Your task to perform on an android device: find which apps use the phone's location Image 0: 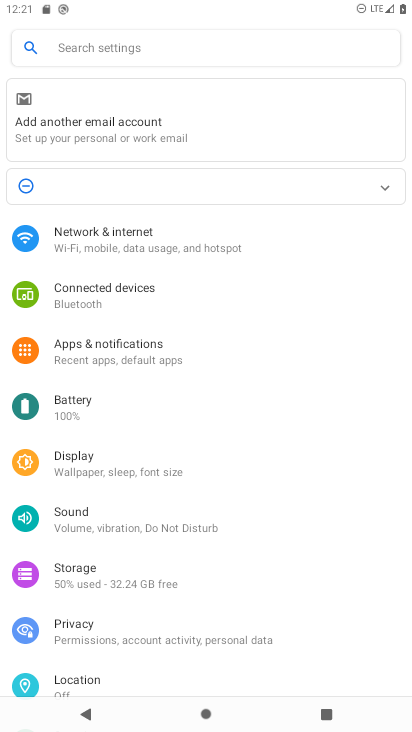
Step 0: click (138, 673)
Your task to perform on an android device: find which apps use the phone's location Image 1: 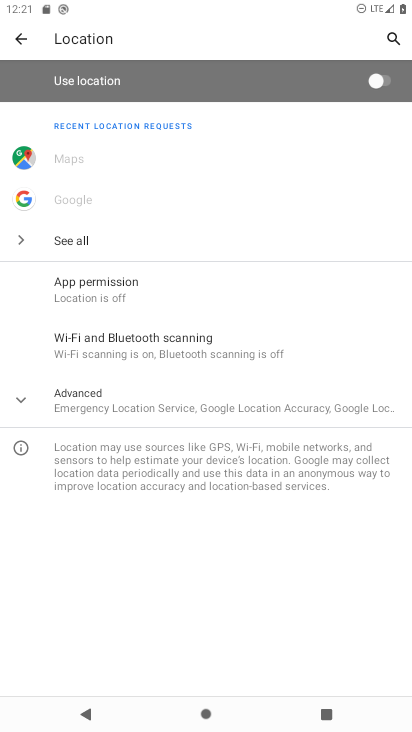
Step 1: task complete